Your task to perform on an android device: turn off location Image 0: 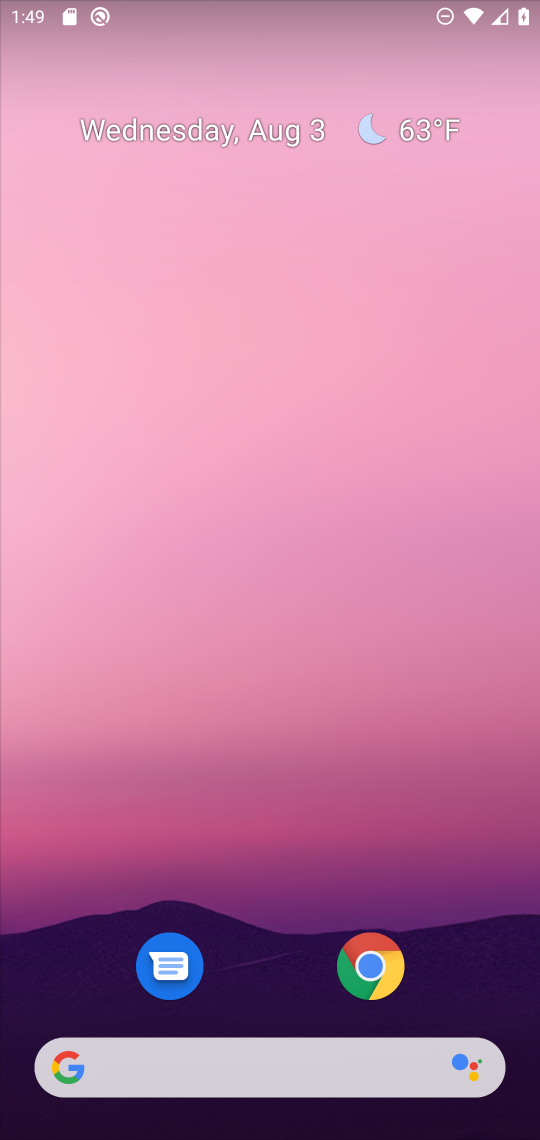
Step 0: drag from (271, 975) to (156, 371)
Your task to perform on an android device: turn off location Image 1: 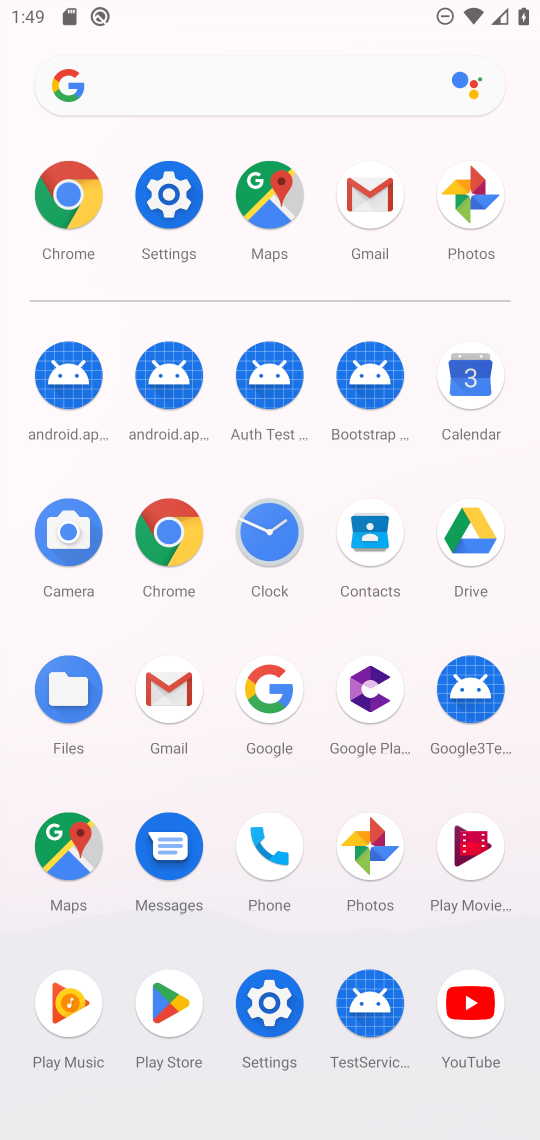
Step 1: click (156, 212)
Your task to perform on an android device: turn off location Image 2: 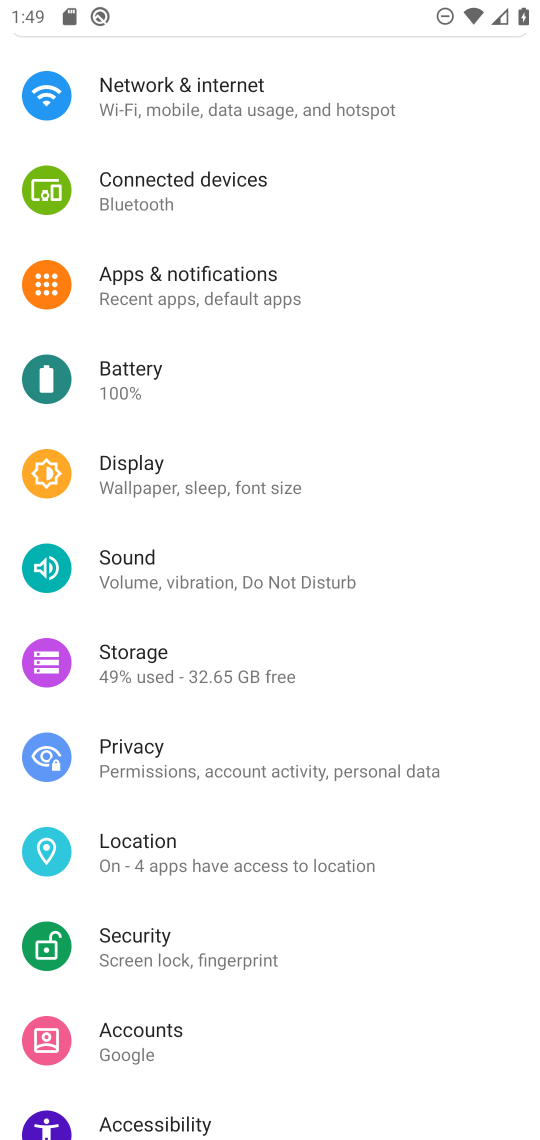
Step 2: click (191, 841)
Your task to perform on an android device: turn off location Image 3: 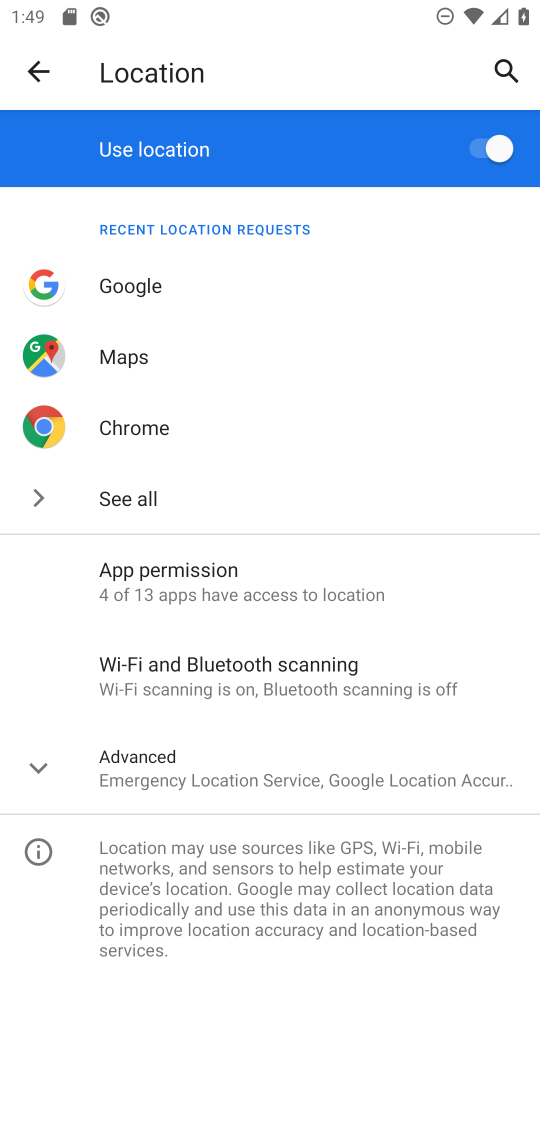
Step 3: click (482, 162)
Your task to perform on an android device: turn off location Image 4: 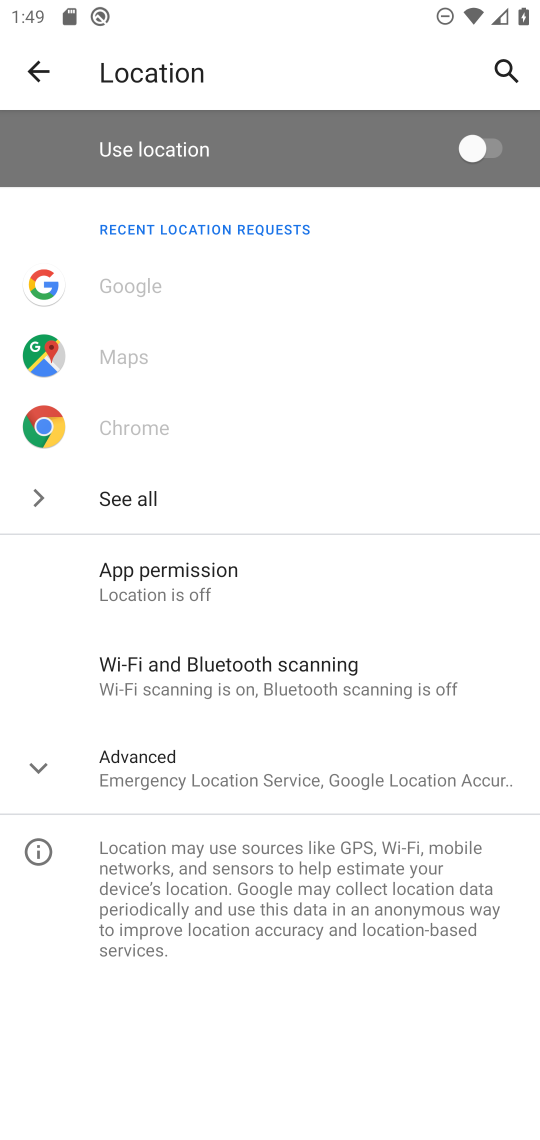
Step 4: task complete